Your task to perform on an android device: What are the new products by Samsung? Image 0: 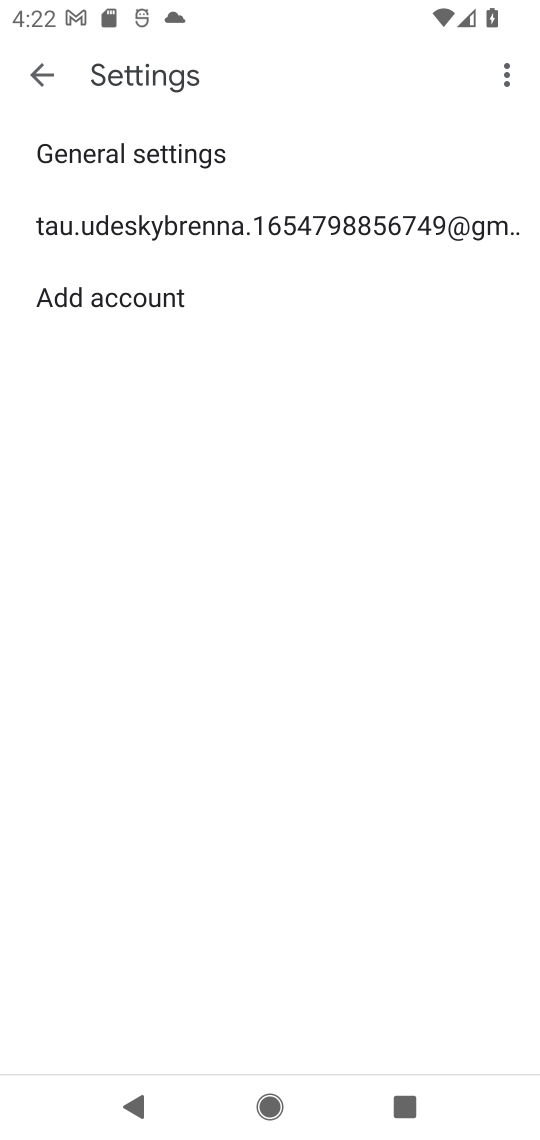
Step 0: press home button
Your task to perform on an android device: What are the new products by Samsung? Image 1: 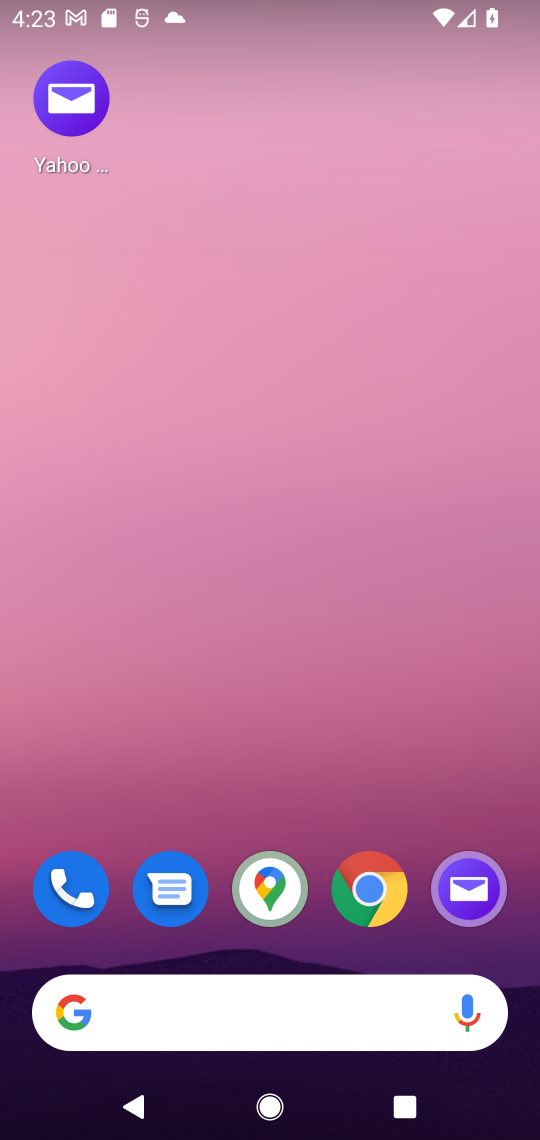
Step 1: click (361, 896)
Your task to perform on an android device: What are the new products by Samsung? Image 2: 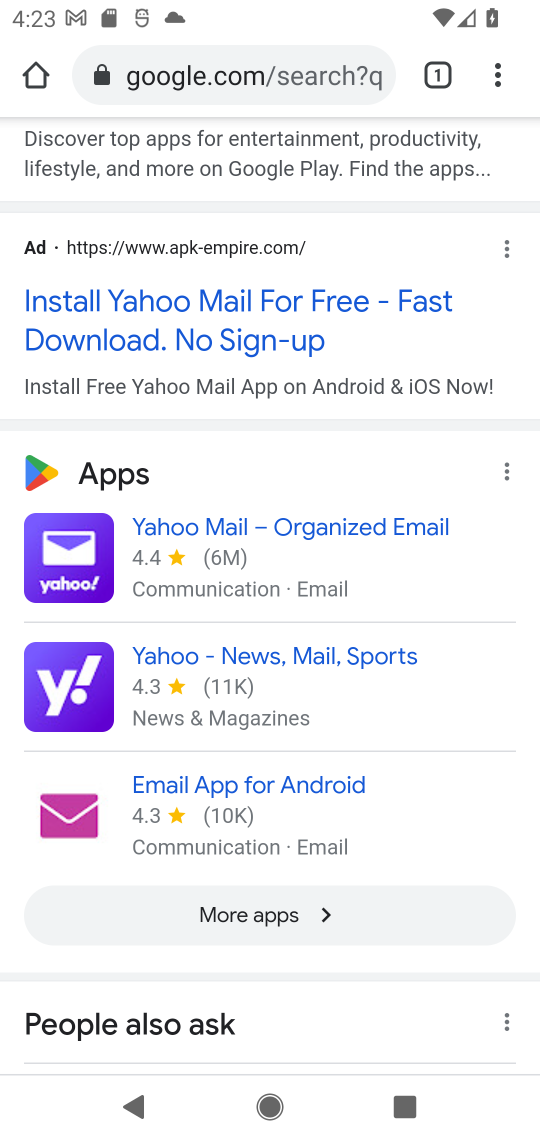
Step 2: click (308, 50)
Your task to perform on an android device: What are the new products by Samsung? Image 3: 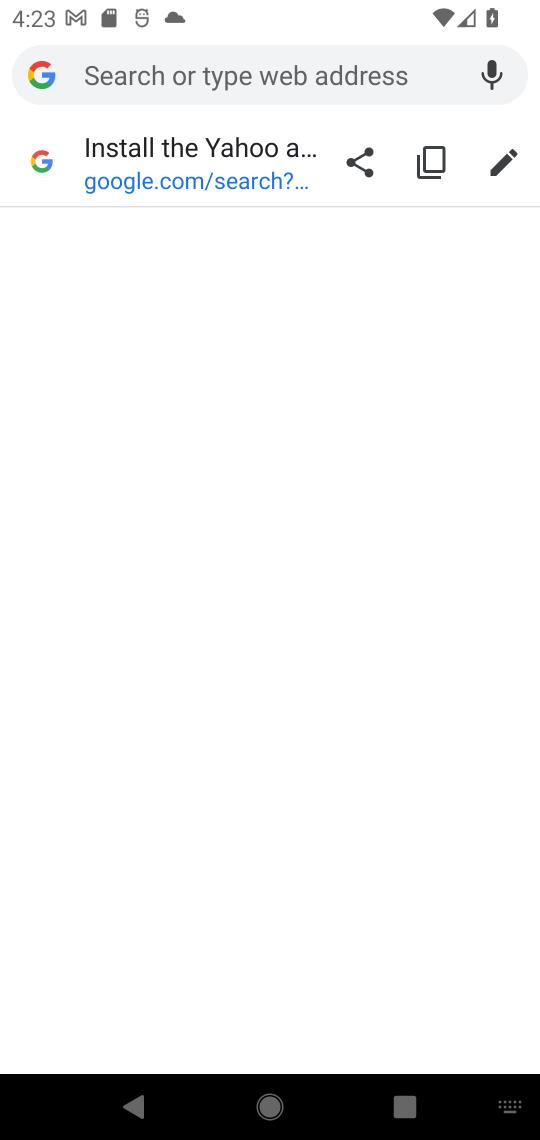
Step 3: type "new products by Samsung?"
Your task to perform on an android device: What are the new products by Samsung? Image 4: 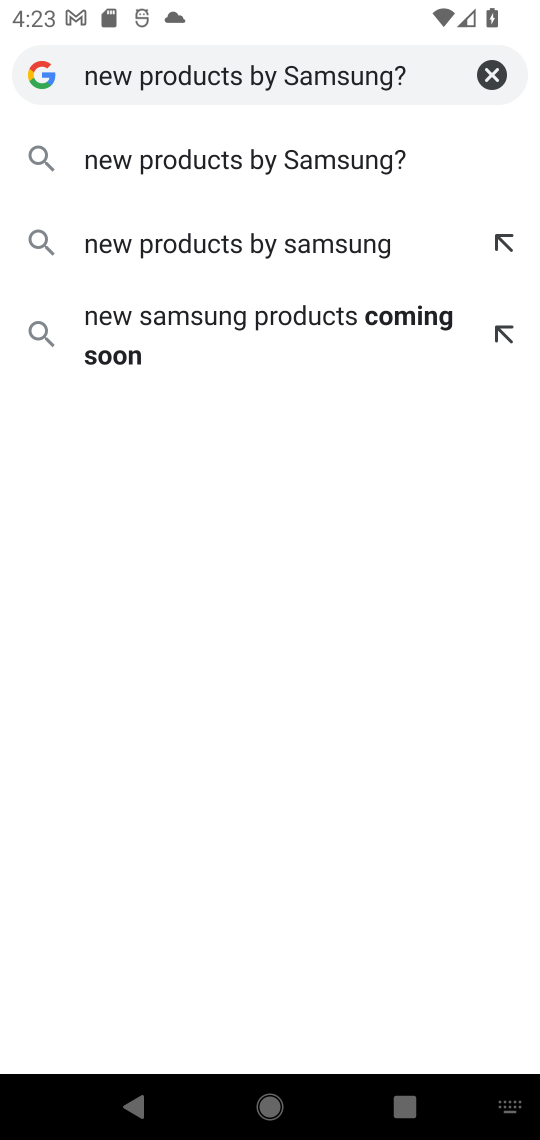
Step 4: click (162, 150)
Your task to perform on an android device: What are the new products by Samsung? Image 5: 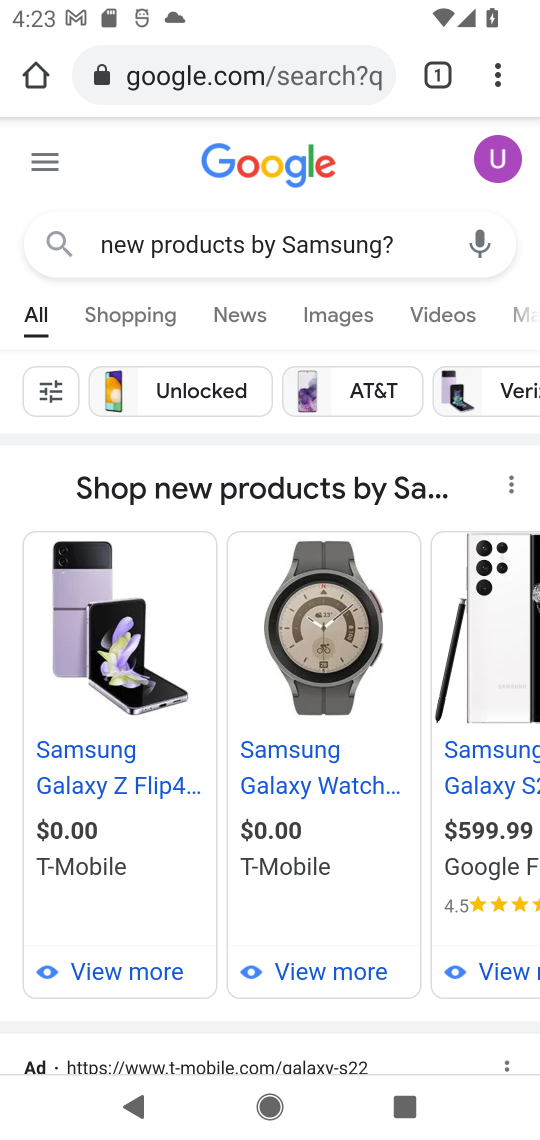
Step 5: drag from (242, 487) to (241, 125)
Your task to perform on an android device: What are the new products by Samsung? Image 6: 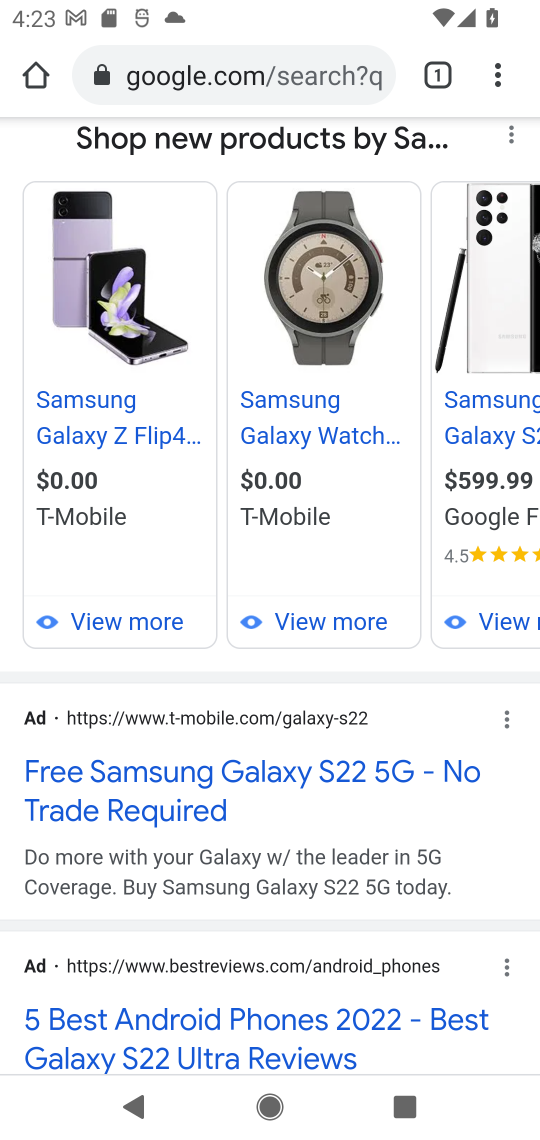
Step 6: drag from (178, 878) to (213, 481)
Your task to perform on an android device: What are the new products by Samsung? Image 7: 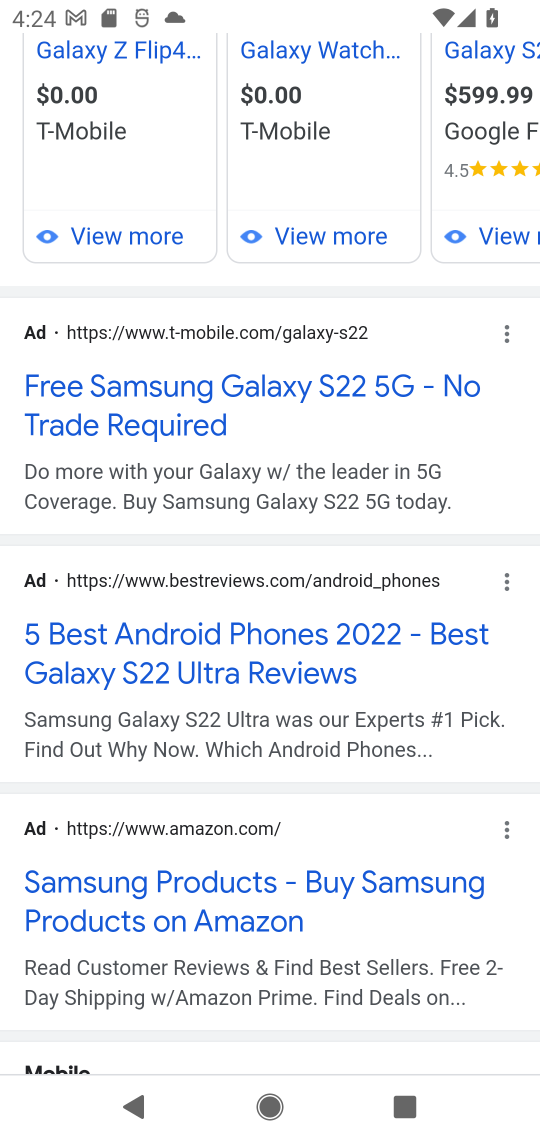
Step 7: drag from (153, 722) to (132, 388)
Your task to perform on an android device: What are the new products by Samsung? Image 8: 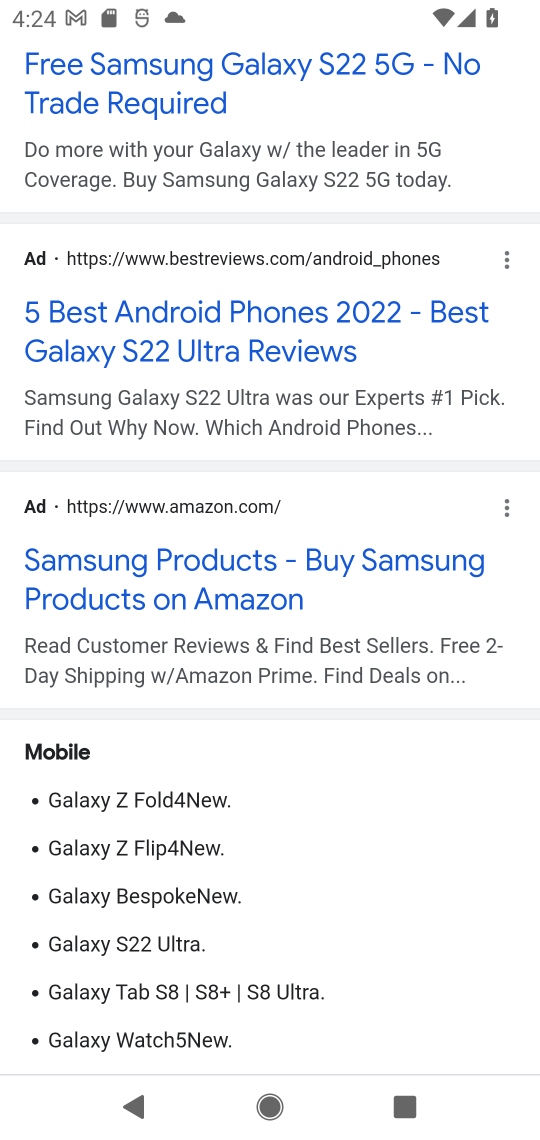
Step 8: click (155, 608)
Your task to perform on an android device: What are the new products by Samsung? Image 9: 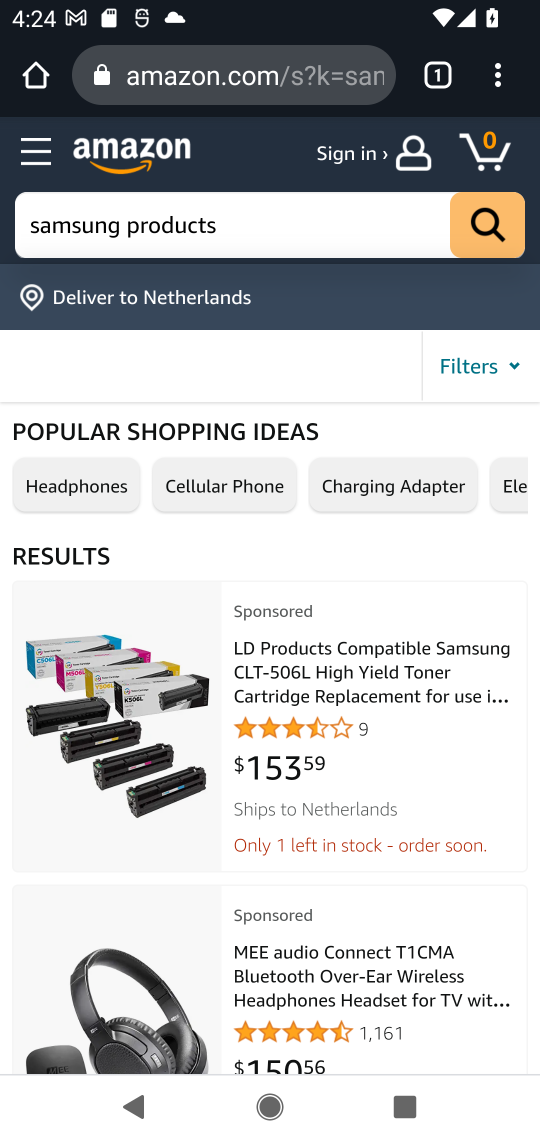
Step 9: task complete